Your task to perform on an android device: Open notification settings Image 0: 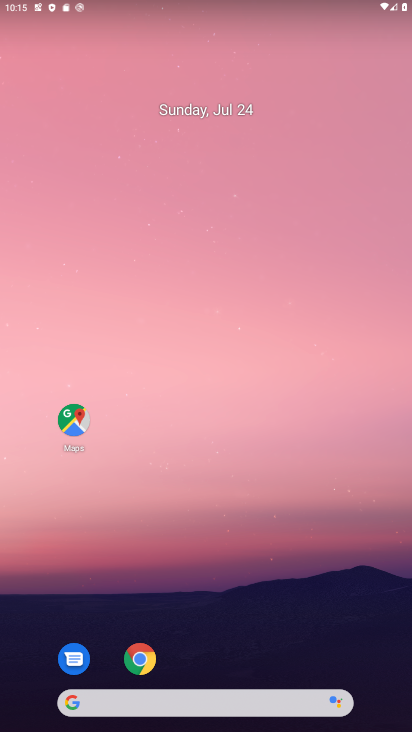
Step 0: drag from (389, 697) to (261, 312)
Your task to perform on an android device: Open notification settings Image 1: 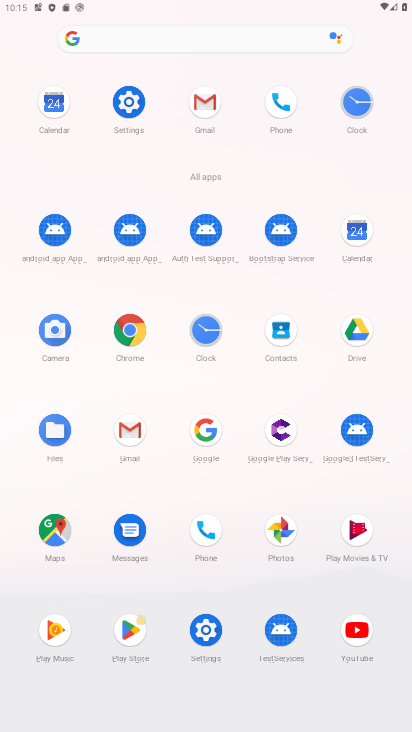
Step 1: click (115, 85)
Your task to perform on an android device: Open notification settings Image 2: 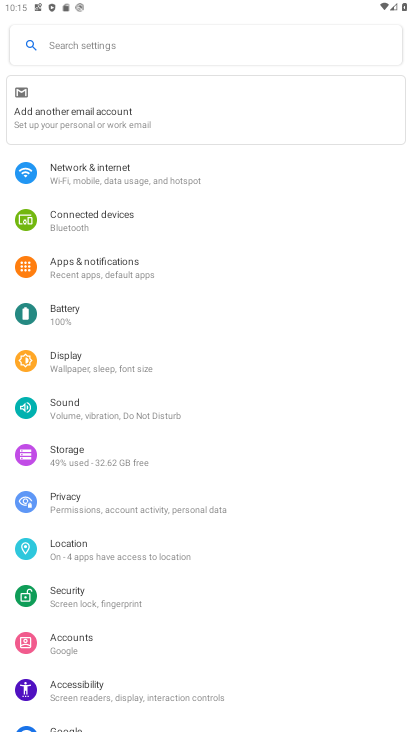
Step 2: click (88, 268)
Your task to perform on an android device: Open notification settings Image 3: 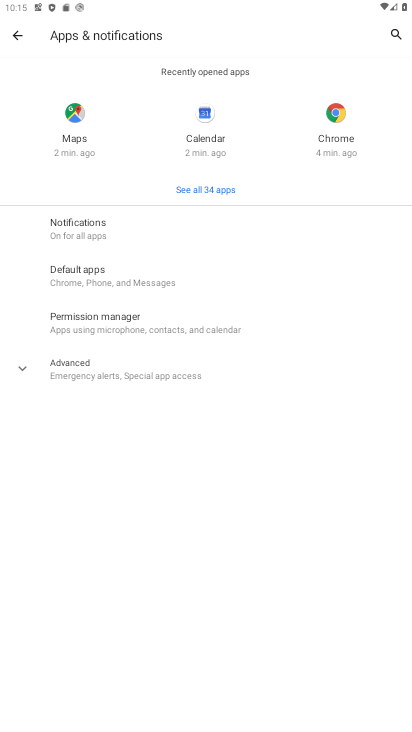
Step 3: click (84, 223)
Your task to perform on an android device: Open notification settings Image 4: 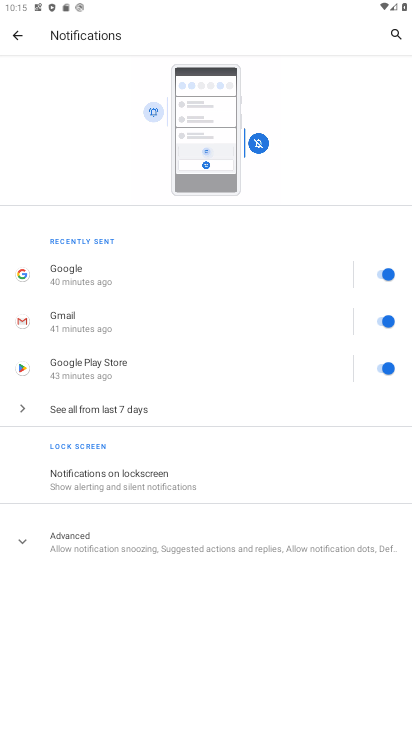
Step 4: task complete